Your task to perform on an android device: open a bookmark in the chrome app Image 0: 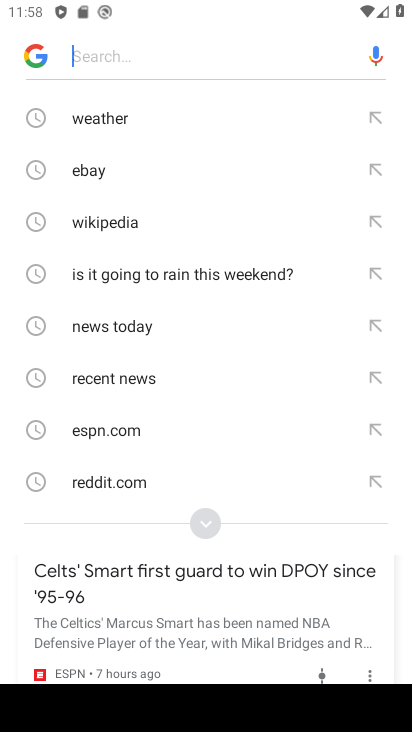
Step 0: press home button
Your task to perform on an android device: open a bookmark in the chrome app Image 1: 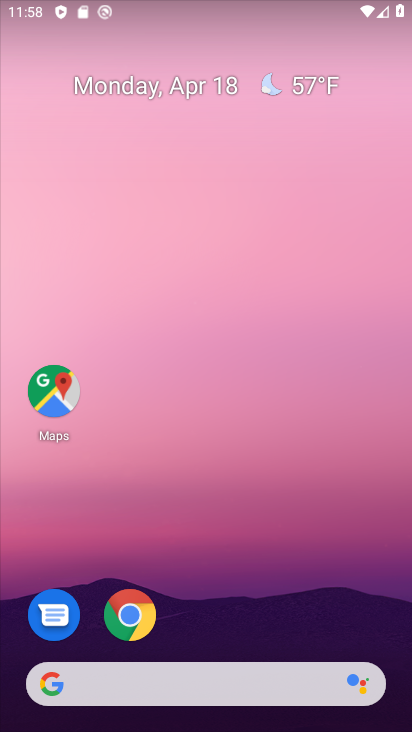
Step 1: click (117, 615)
Your task to perform on an android device: open a bookmark in the chrome app Image 2: 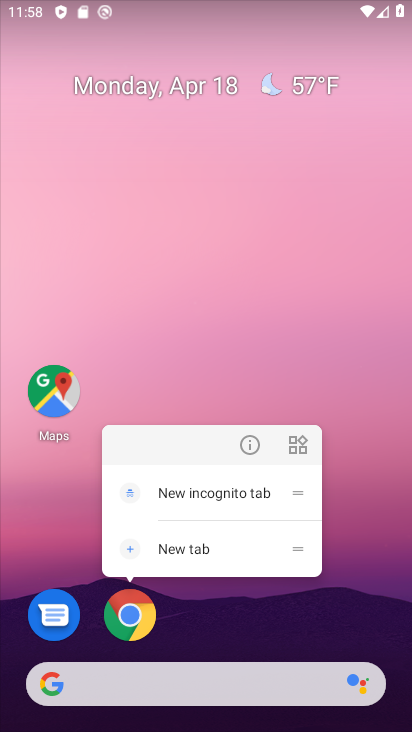
Step 2: click (141, 620)
Your task to perform on an android device: open a bookmark in the chrome app Image 3: 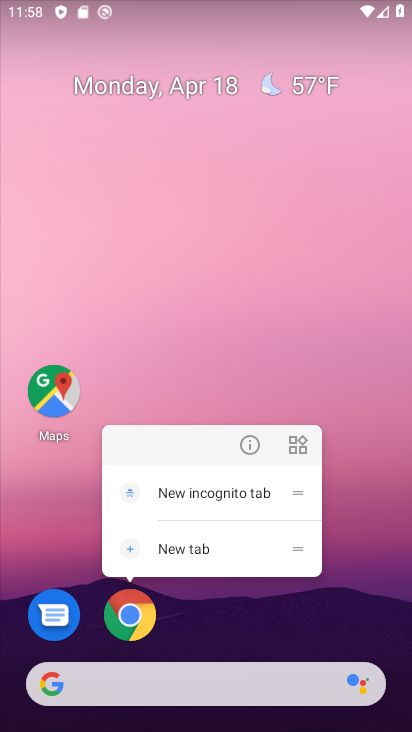
Step 3: click (142, 616)
Your task to perform on an android device: open a bookmark in the chrome app Image 4: 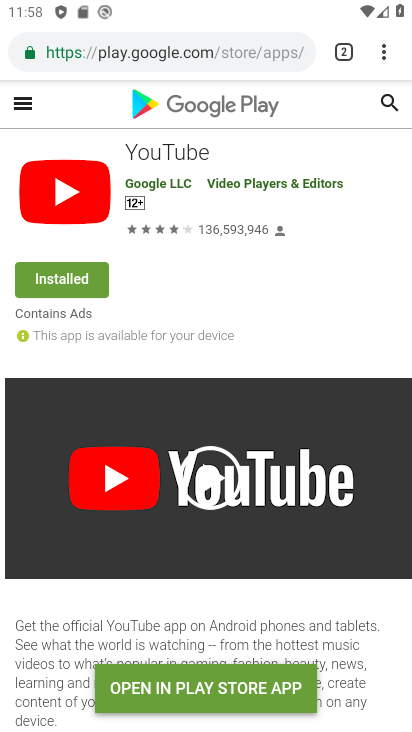
Step 4: click (384, 53)
Your task to perform on an android device: open a bookmark in the chrome app Image 5: 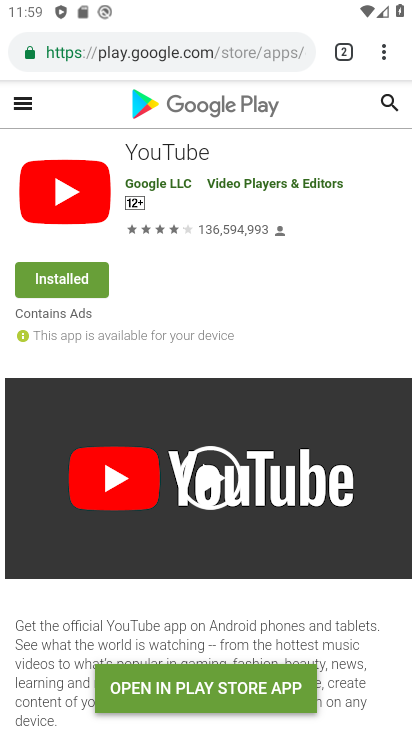
Step 5: click (386, 58)
Your task to perform on an android device: open a bookmark in the chrome app Image 6: 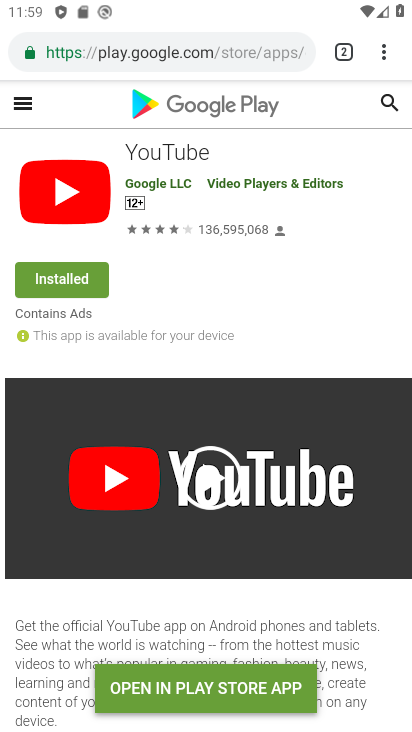
Step 6: task complete